Your task to perform on an android device: Show me the alarms in the clock app Image 0: 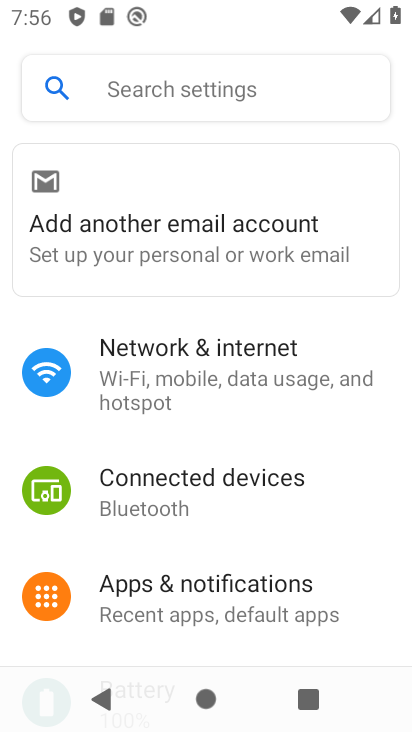
Step 0: press home button
Your task to perform on an android device: Show me the alarms in the clock app Image 1: 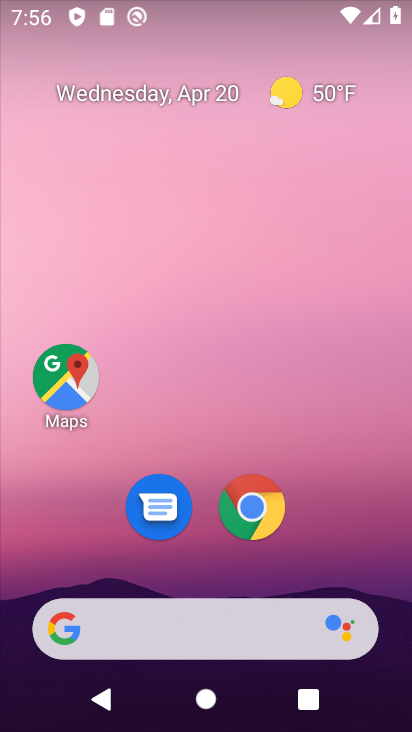
Step 1: drag from (206, 633) to (239, 214)
Your task to perform on an android device: Show me the alarms in the clock app Image 2: 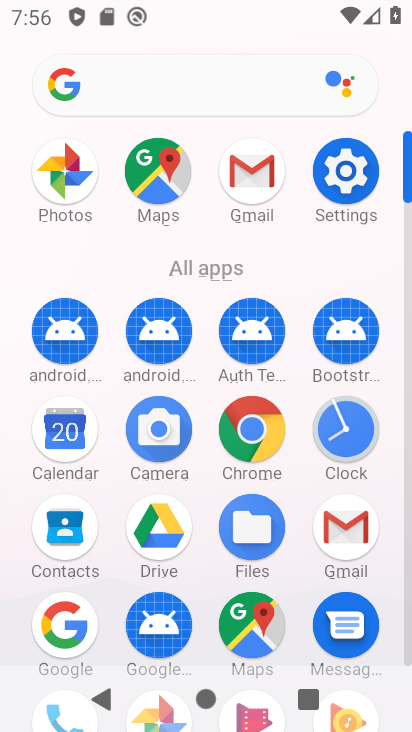
Step 2: click (368, 433)
Your task to perform on an android device: Show me the alarms in the clock app Image 3: 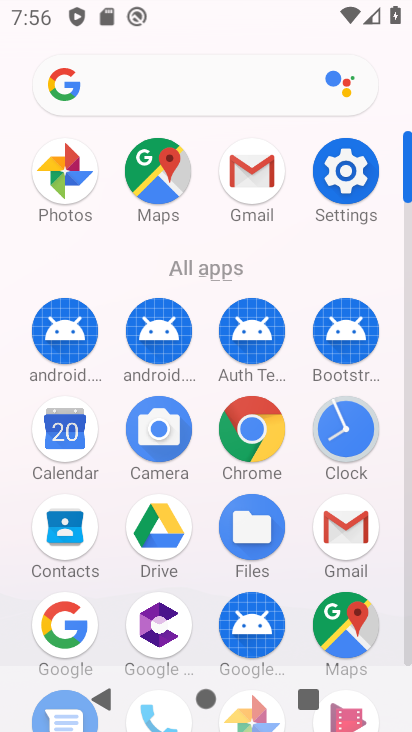
Step 3: click (343, 446)
Your task to perform on an android device: Show me the alarms in the clock app Image 4: 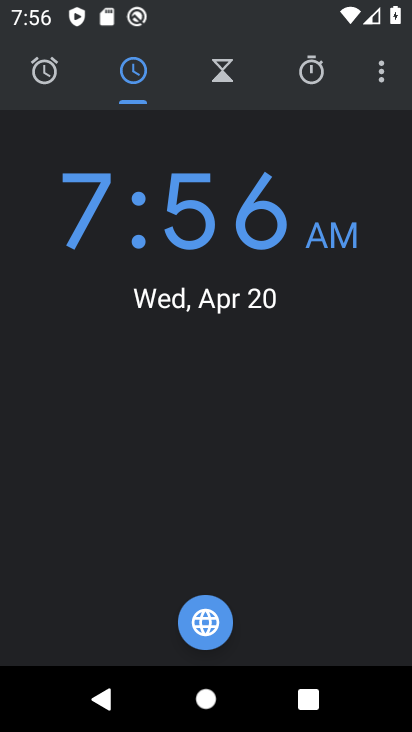
Step 4: click (45, 67)
Your task to perform on an android device: Show me the alarms in the clock app Image 5: 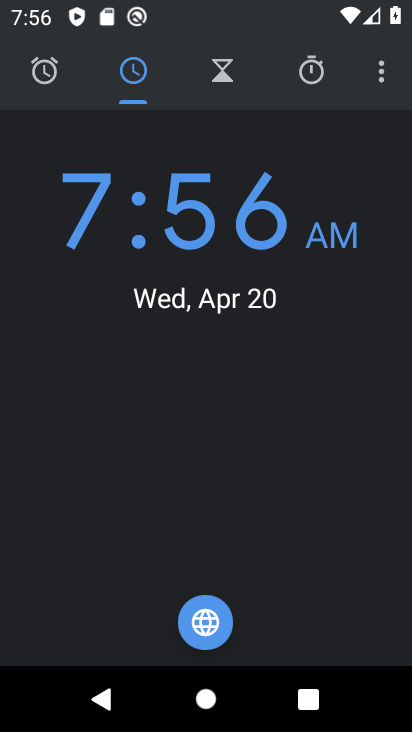
Step 5: click (45, 67)
Your task to perform on an android device: Show me the alarms in the clock app Image 6: 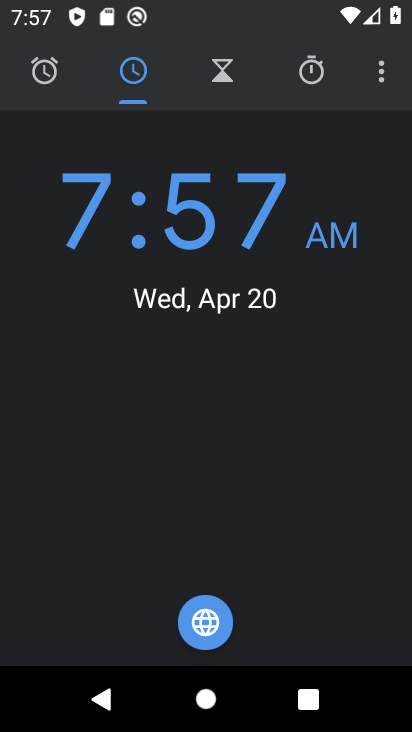
Step 6: click (45, 67)
Your task to perform on an android device: Show me the alarms in the clock app Image 7: 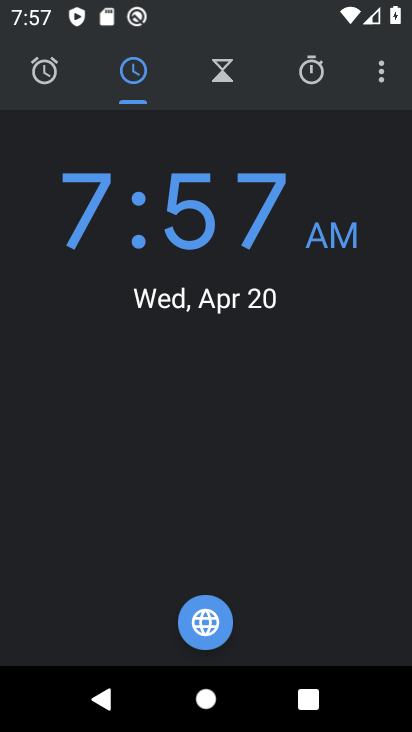
Step 7: click (48, 82)
Your task to perform on an android device: Show me the alarms in the clock app Image 8: 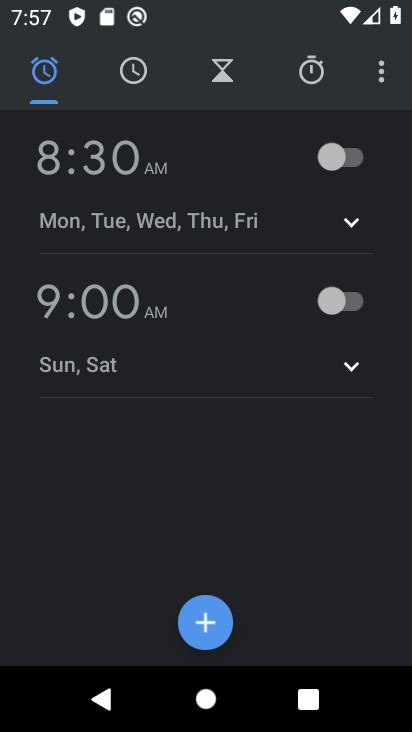
Step 8: task complete